Your task to perform on an android device: turn notification dots off Image 0: 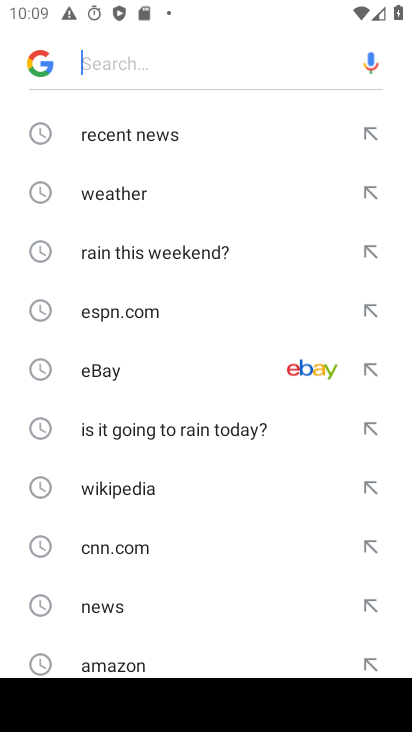
Step 0: press home button
Your task to perform on an android device: turn notification dots off Image 1: 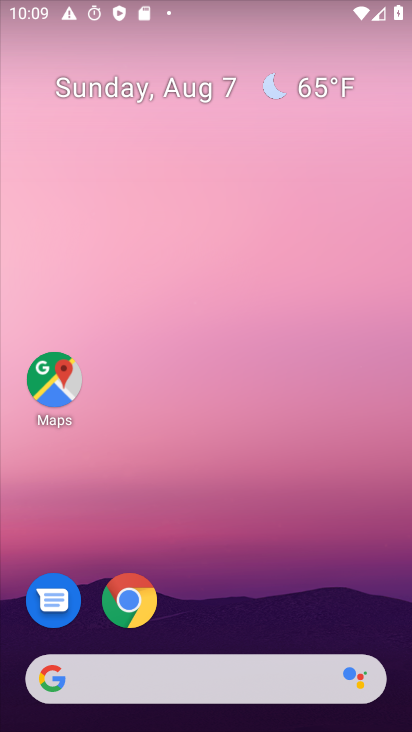
Step 1: drag from (241, 651) to (261, 95)
Your task to perform on an android device: turn notification dots off Image 2: 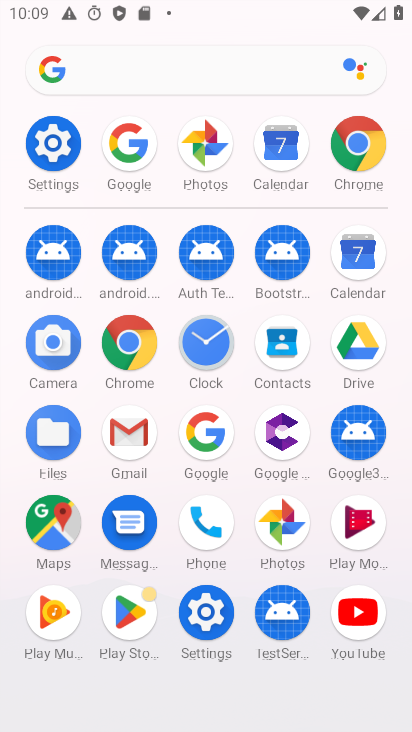
Step 2: click (58, 159)
Your task to perform on an android device: turn notification dots off Image 3: 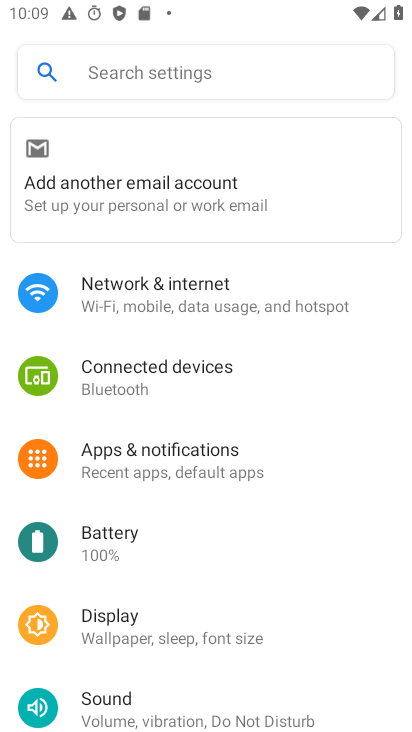
Step 3: click (159, 458)
Your task to perform on an android device: turn notification dots off Image 4: 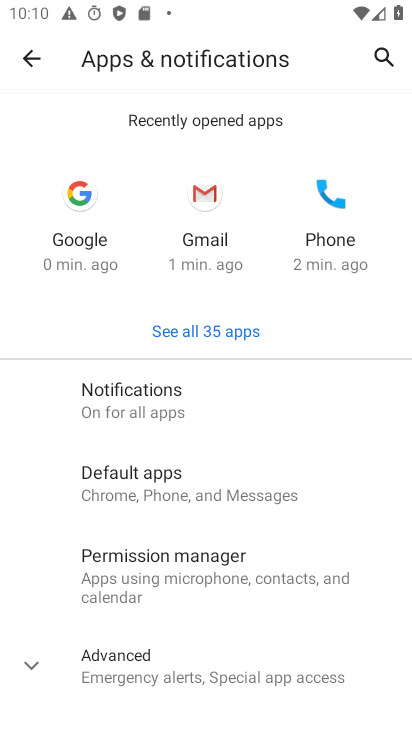
Step 4: click (184, 410)
Your task to perform on an android device: turn notification dots off Image 5: 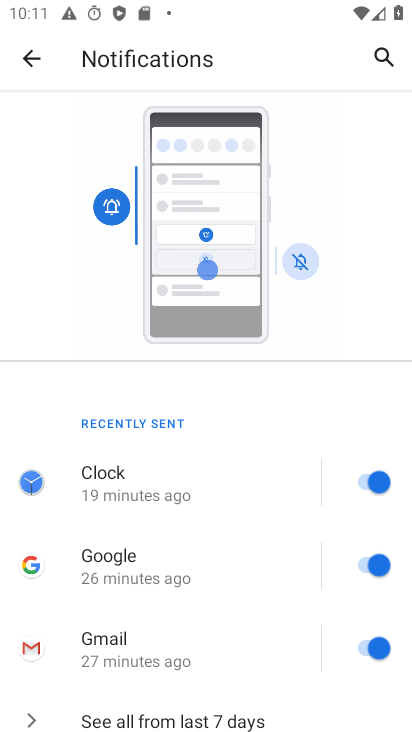
Step 5: drag from (228, 482) to (290, 207)
Your task to perform on an android device: turn notification dots off Image 6: 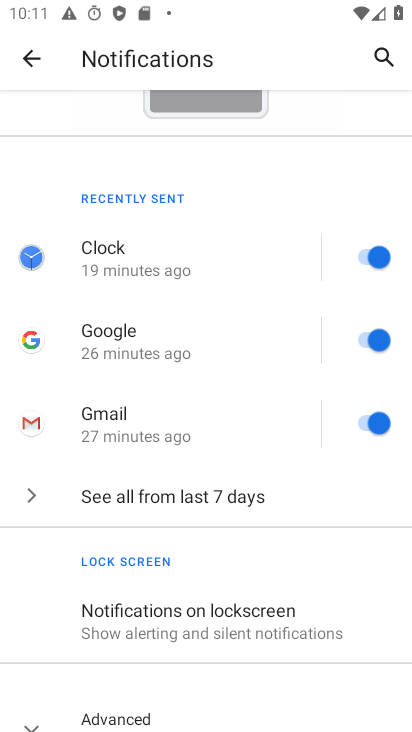
Step 6: drag from (227, 636) to (244, 251)
Your task to perform on an android device: turn notification dots off Image 7: 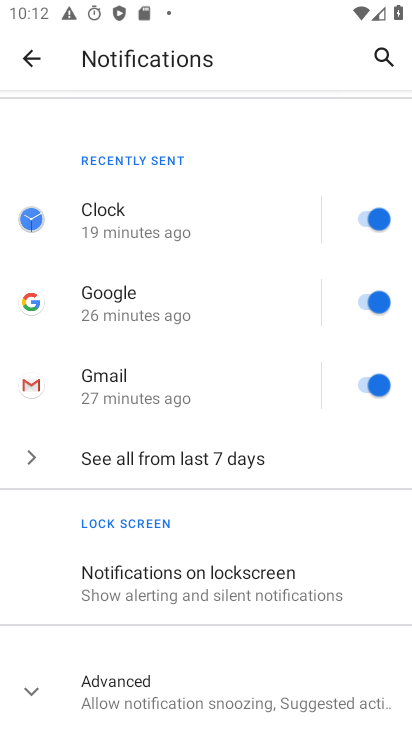
Step 7: click (183, 699)
Your task to perform on an android device: turn notification dots off Image 8: 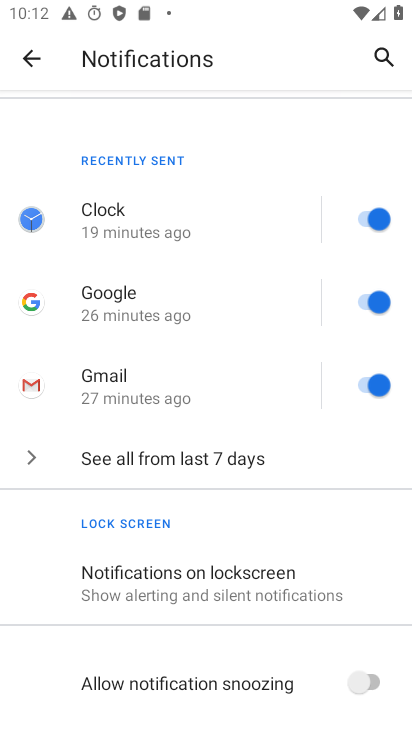
Step 8: drag from (268, 498) to (287, 208)
Your task to perform on an android device: turn notification dots off Image 9: 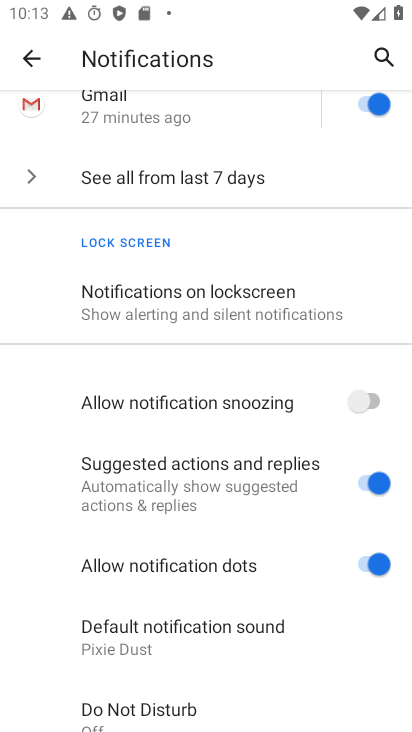
Step 9: drag from (218, 521) to (231, 413)
Your task to perform on an android device: turn notification dots off Image 10: 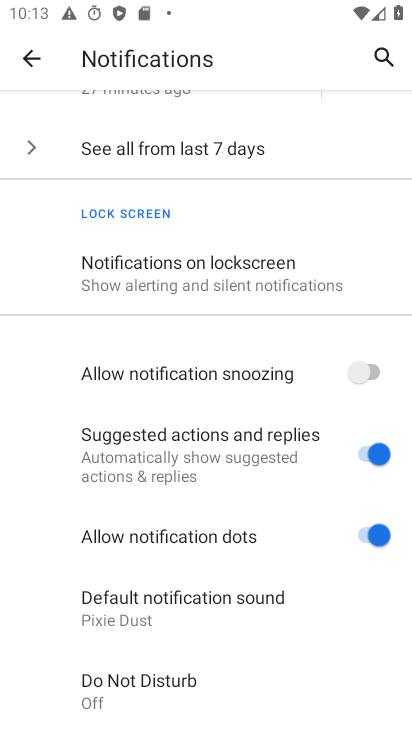
Step 10: click (369, 535)
Your task to perform on an android device: turn notification dots off Image 11: 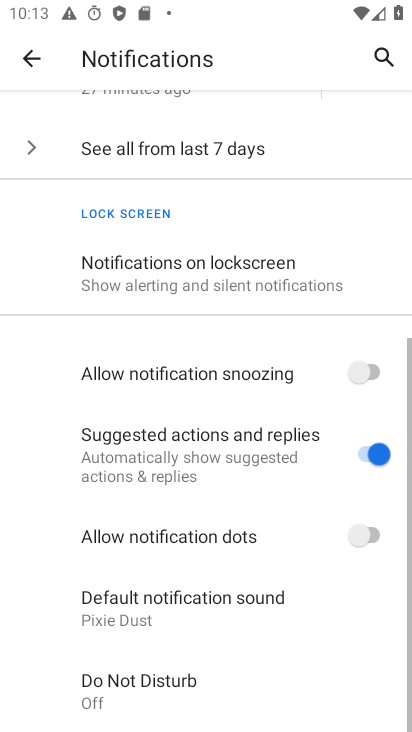
Step 11: task complete